Your task to perform on an android device: Open Google Image 0: 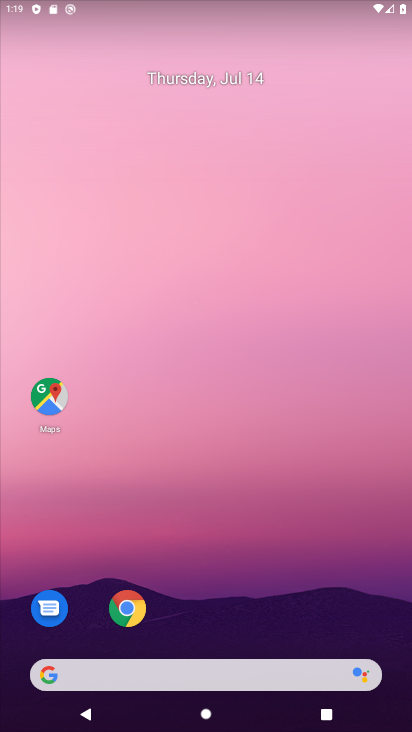
Step 0: click (144, 686)
Your task to perform on an android device: Open Google Image 1: 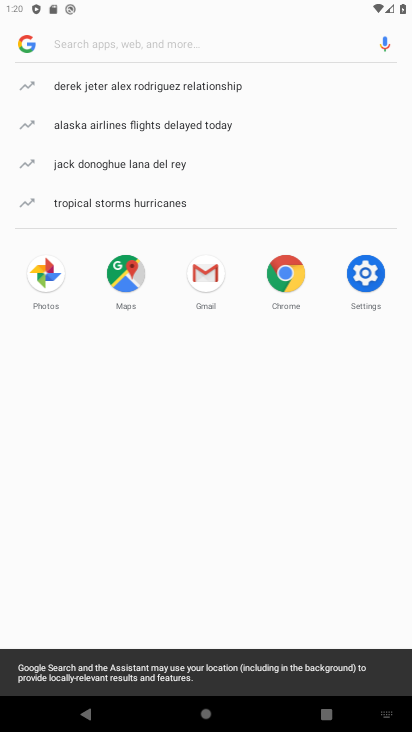
Step 1: click (22, 49)
Your task to perform on an android device: Open Google Image 2: 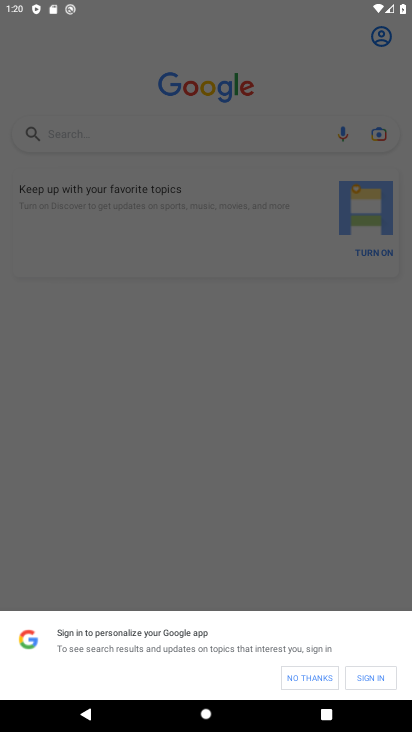
Step 2: task complete